Your task to perform on an android device: Open network settings Image 0: 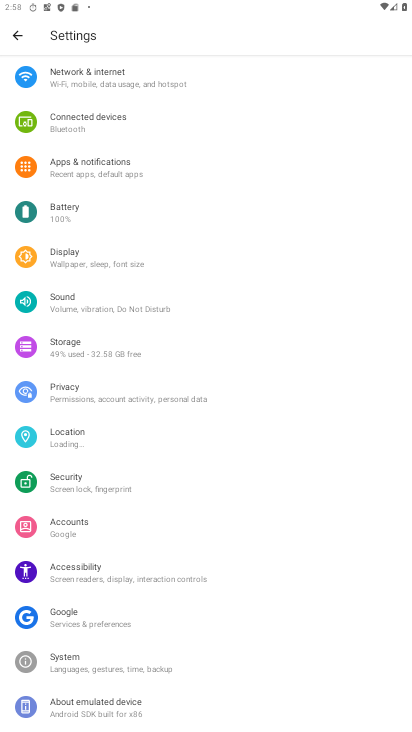
Step 0: press home button
Your task to perform on an android device: Open network settings Image 1: 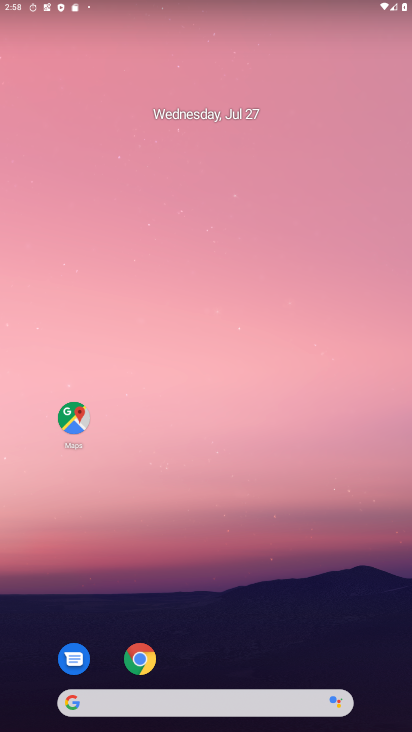
Step 1: drag from (201, 729) to (195, 116)
Your task to perform on an android device: Open network settings Image 2: 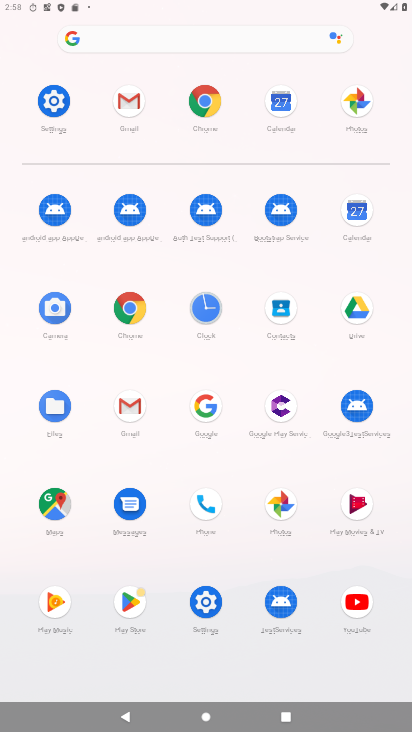
Step 2: click (56, 104)
Your task to perform on an android device: Open network settings Image 3: 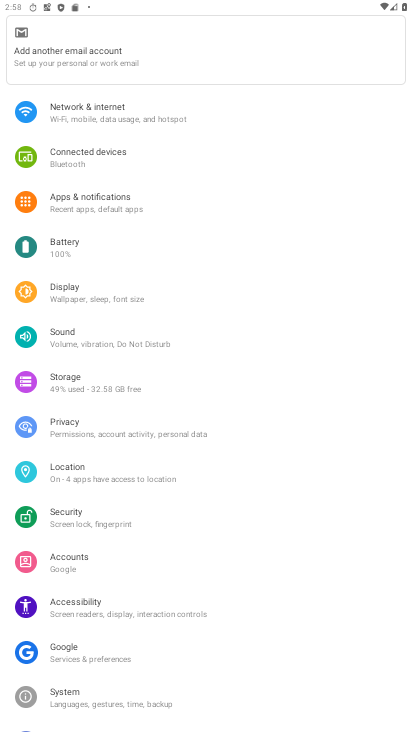
Step 3: click (107, 102)
Your task to perform on an android device: Open network settings Image 4: 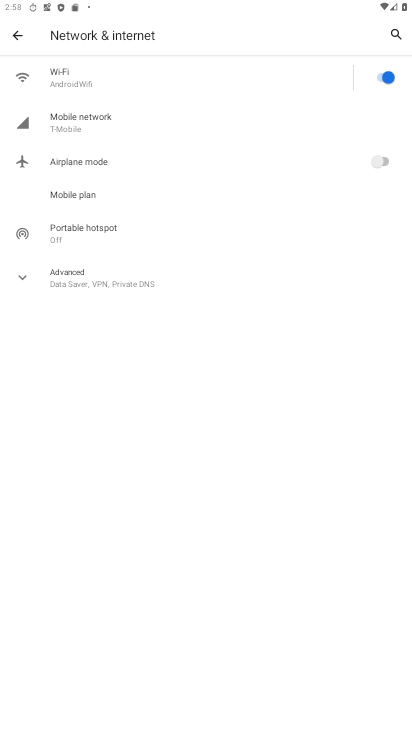
Step 4: click (78, 122)
Your task to perform on an android device: Open network settings Image 5: 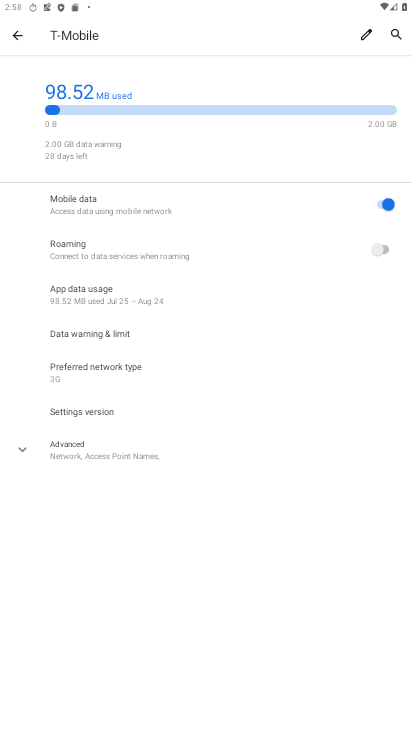
Step 5: task complete